Your task to perform on an android device: Open settings on Google Maps Image 0: 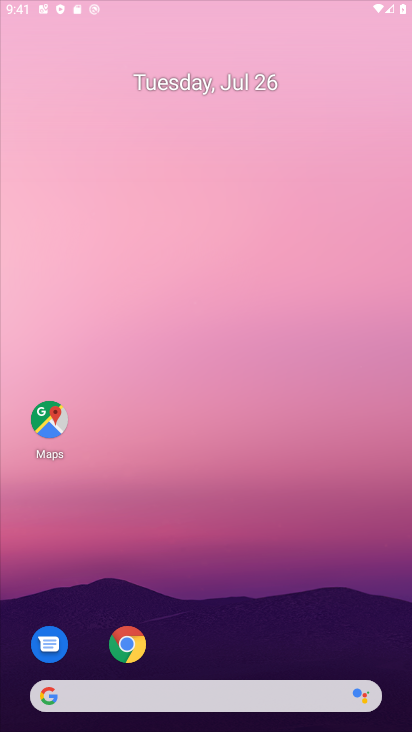
Step 0: drag from (234, 654) to (242, 62)
Your task to perform on an android device: Open settings on Google Maps Image 1: 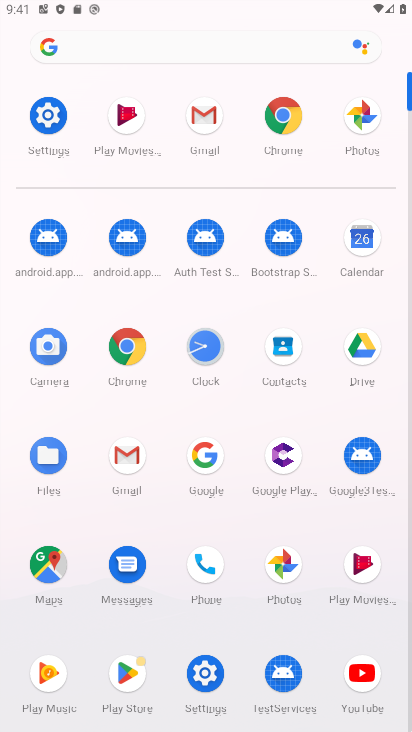
Step 1: click (362, 251)
Your task to perform on an android device: Open settings on Google Maps Image 2: 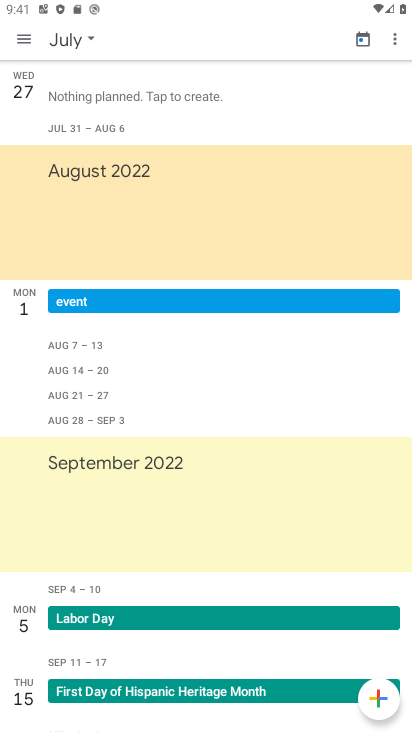
Step 2: click (13, 40)
Your task to perform on an android device: Open settings on Google Maps Image 3: 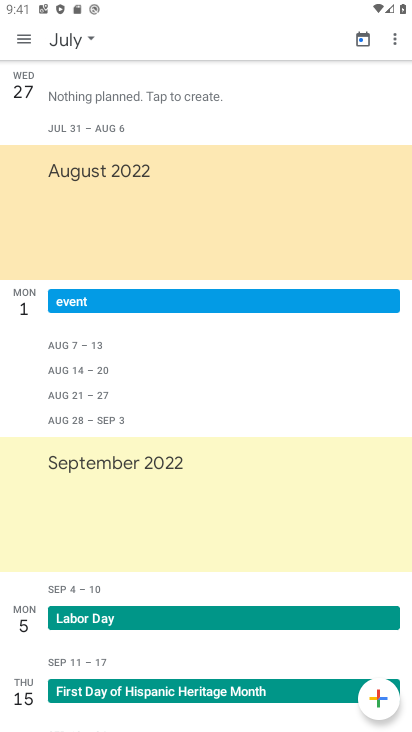
Step 3: click (24, 44)
Your task to perform on an android device: Open settings on Google Maps Image 4: 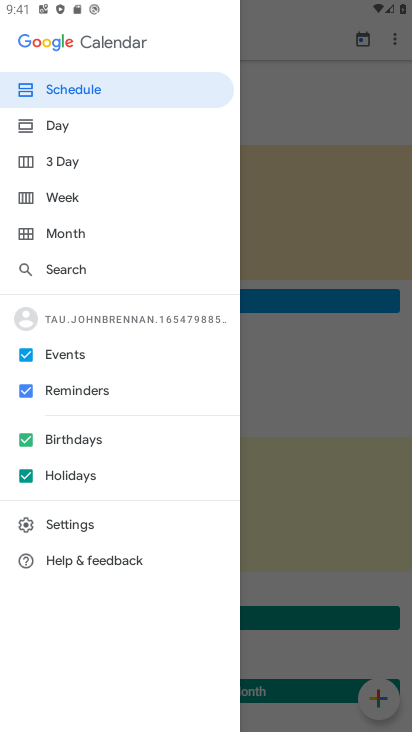
Step 4: click (81, 391)
Your task to perform on an android device: Open settings on Google Maps Image 5: 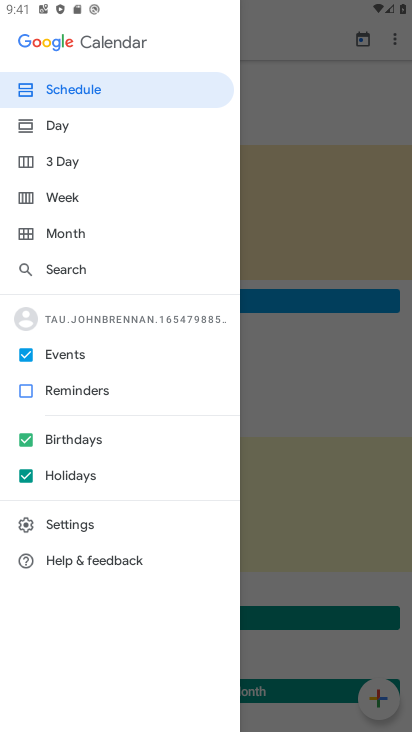
Step 5: click (71, 432)
Your task to perform on an android device: Open settings on Google Maps Image 6: 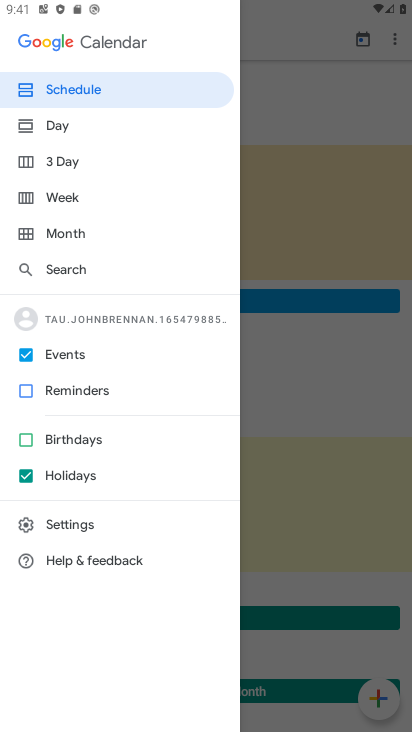
Step 6: click (60, 483)
Your task to perform on an android device: Open settings on Google Maps Image 7: 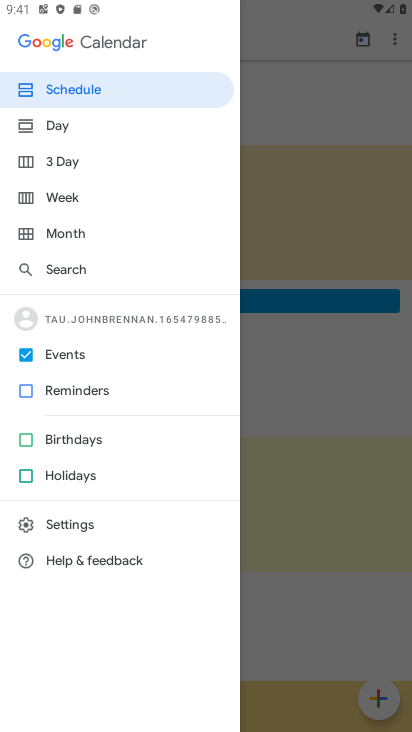
Step 7: click (45, 122)
Your task to perform on an android device: Open settings on Google Maps Image 8: 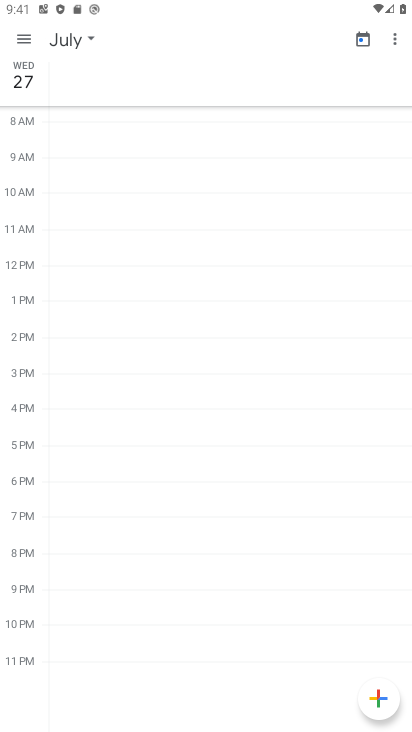
Step 8: task complete